Your task to perform on an android device: empty trash in the gmail app Image 0: 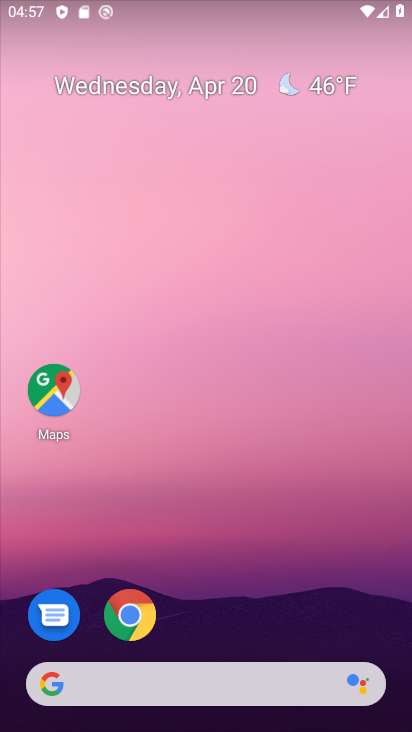
Step 0: drag from (256, 327) to (277, 107)
Your task to perform on an android device: empty trash in the gmail app Image 1: 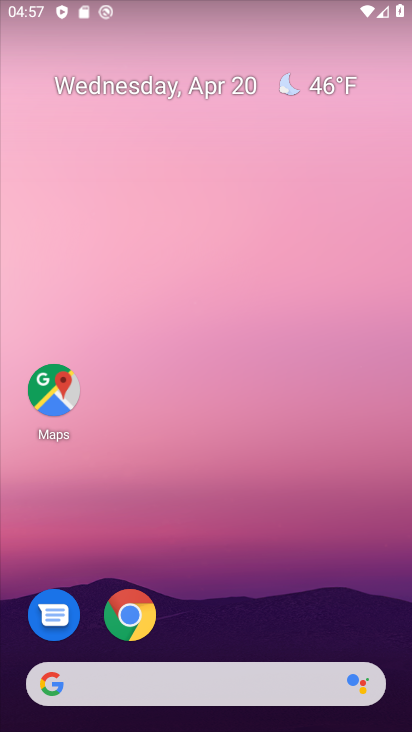
Step 1: drag from (258, 498) to (258, 129)
Your task to perform on an android device: empty trash in the gmail app Image 2: 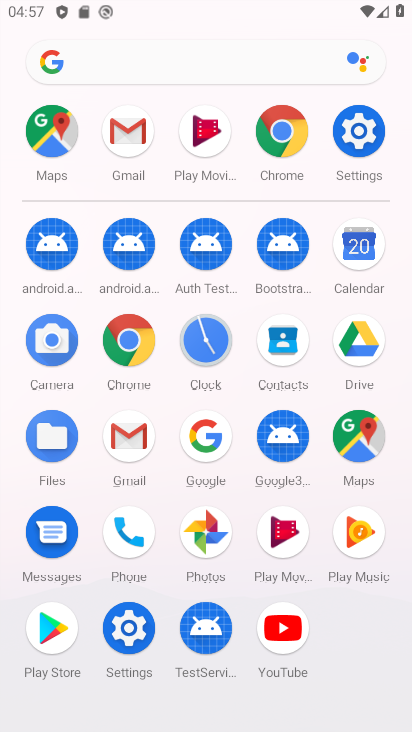
Step 2: click (137, 121)
Your task to perform on an android device: empty trash in the gmail app Image 3: 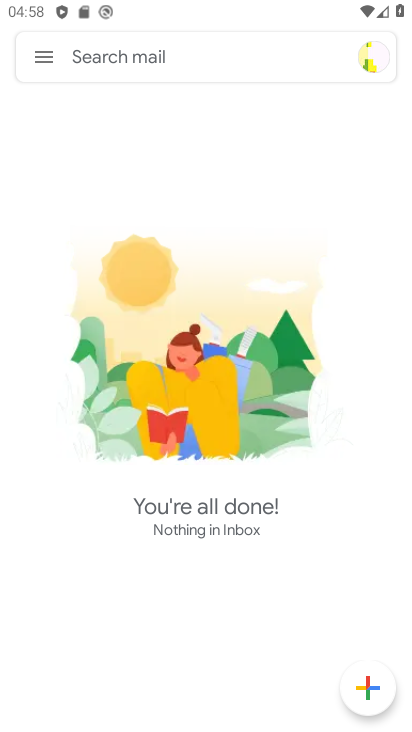
Step 3: click (42, 49)
Your task to perform on an android device: empty trash in the gmail app Image 4: 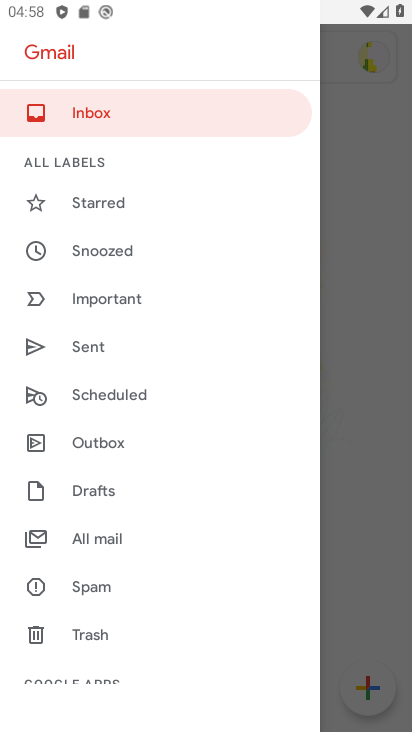
Step 4: click (102, 631)
Your task to perform on an android device: empty trash in the gmail app Image 5: 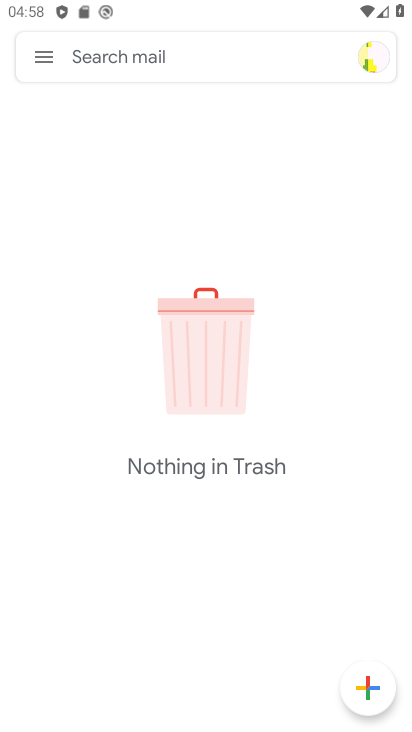
Step 5: task complete